Your task to perform on an android device: move a message to another label in the gmail app Image 0: 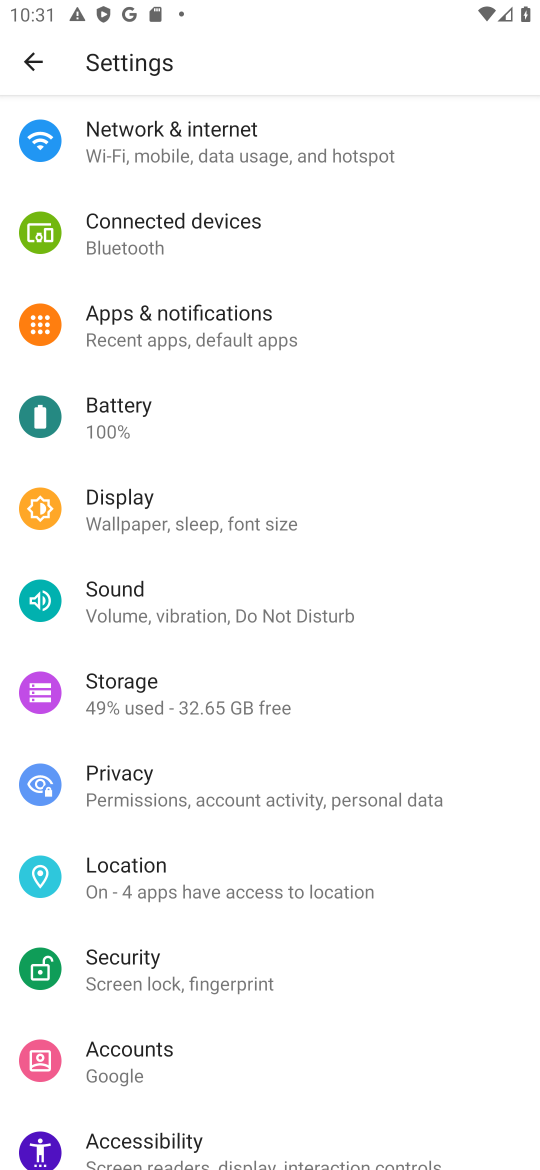
Step 0: press home button
Your task to perform on an android device: move a message to another label in the gmail app Image 1: 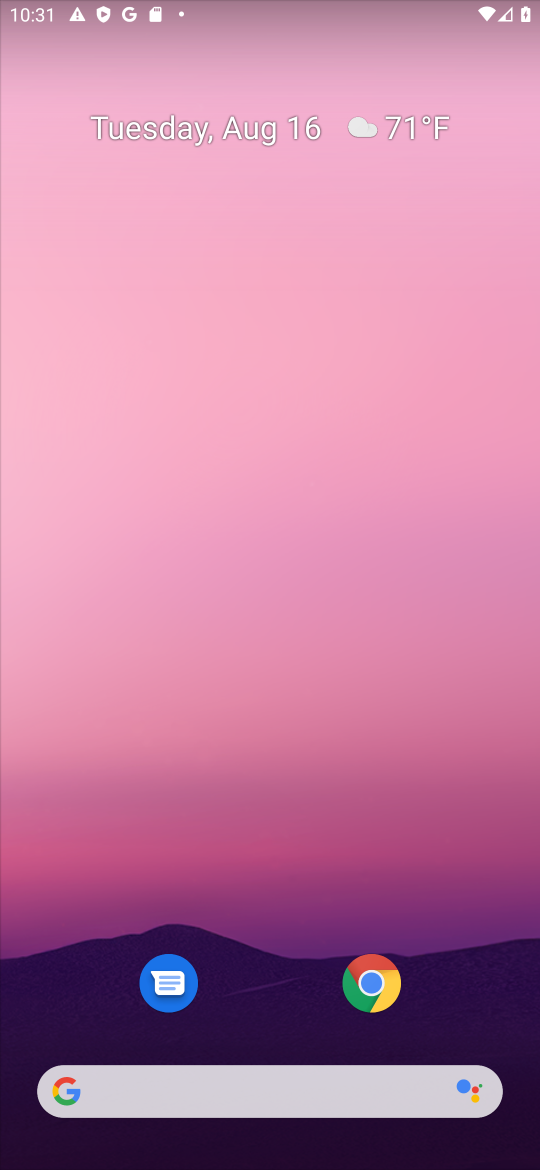
Step 1: drag from (290, 1102) to (227, 22)
Your task to perform on an android device: move a message to another label in the gmail app Image 2: 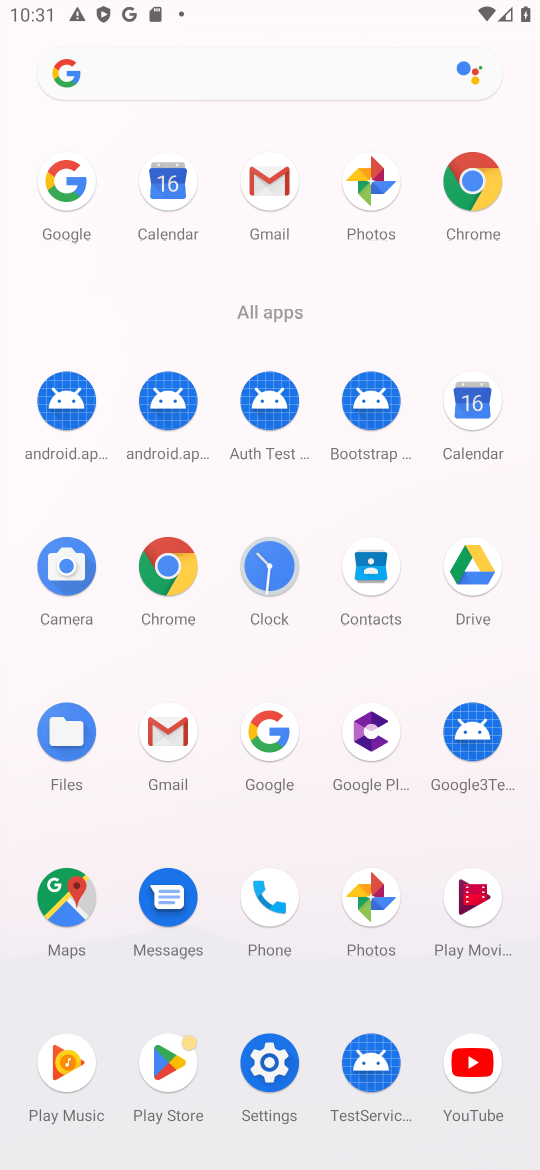
Step 2: click (164, 736)
Your task to perform on an android device: move a message to another label in the gmail app Image 3: 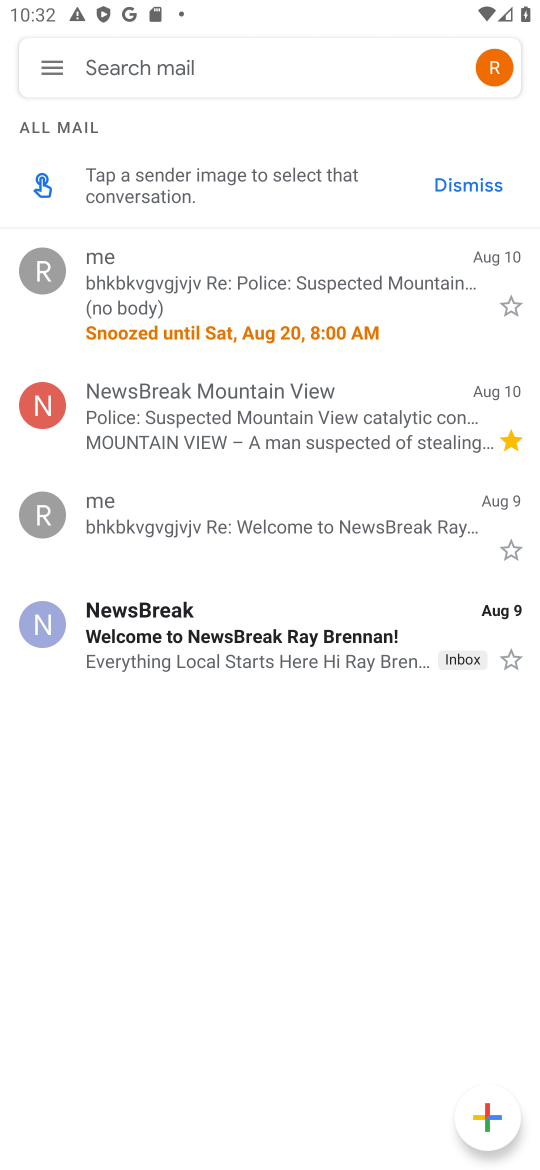
Step 3: click (51, 273)
Your task to perform on an android device: move a message to another label in the gmail app Image 4: 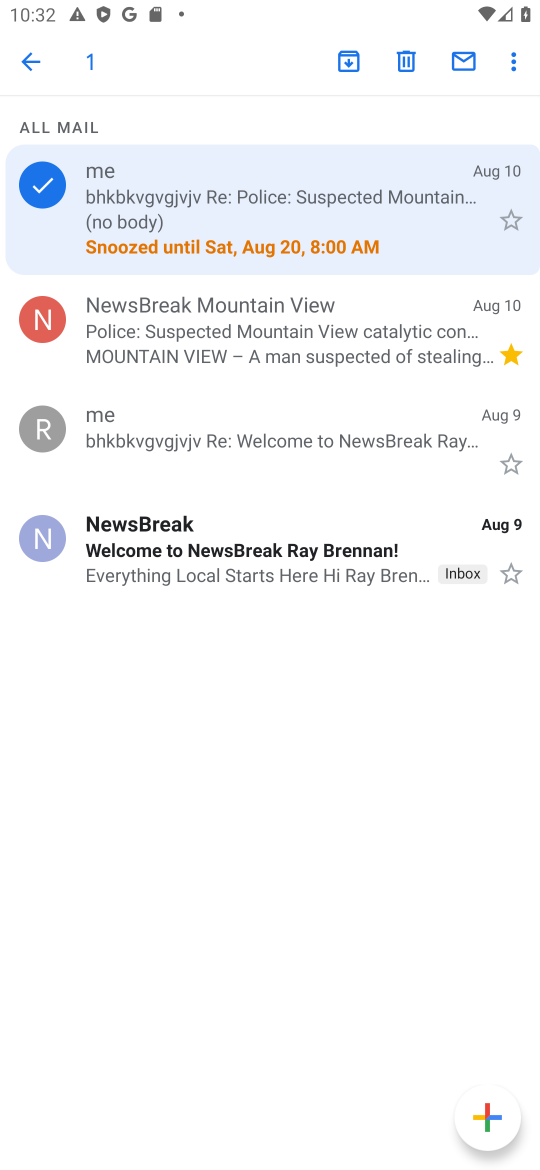
Step 4: click (509, 57)
Your task to perform on an android device: move a message to another label in the gmail app Image 5: 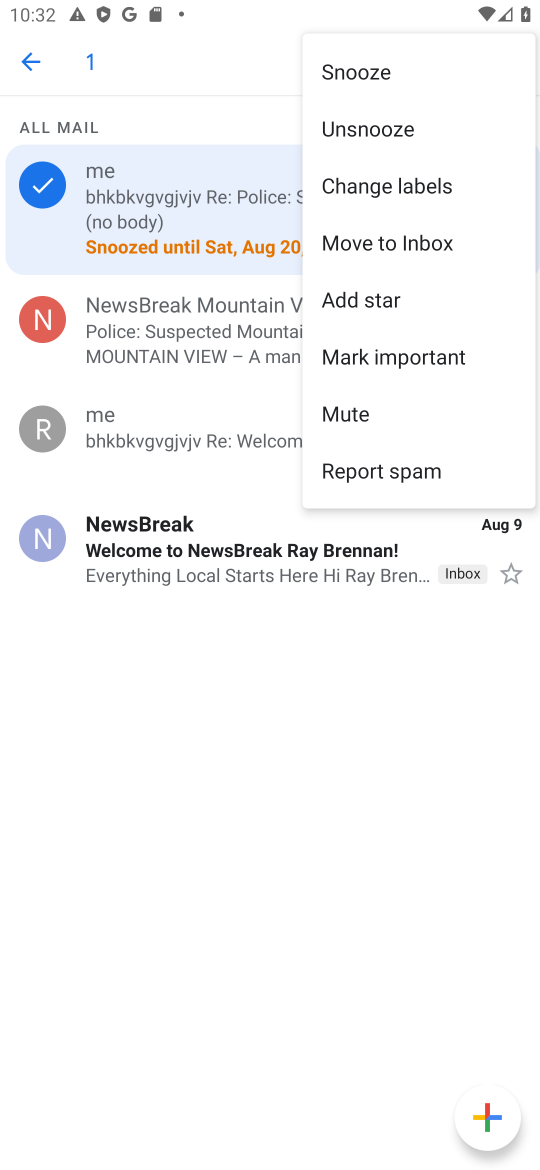
Step 5: click (379, 195)
Your task to perform on an android device: move a message to another label in the gmail app Image 6: 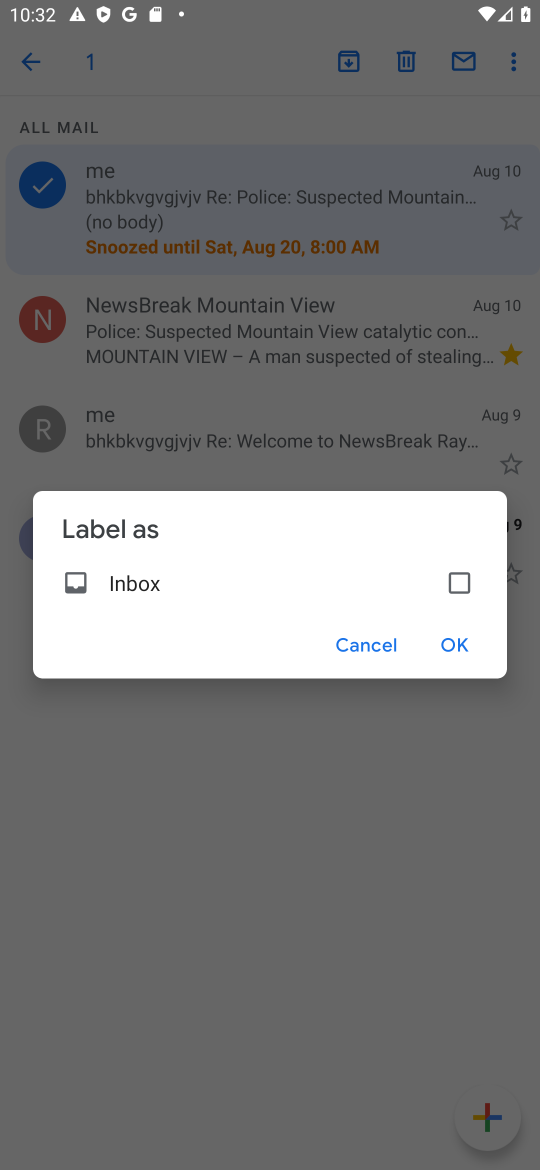
Step 6: click (449, 588)
Your task to perform on an android device: move a message to another label in the gmail app Image 7: 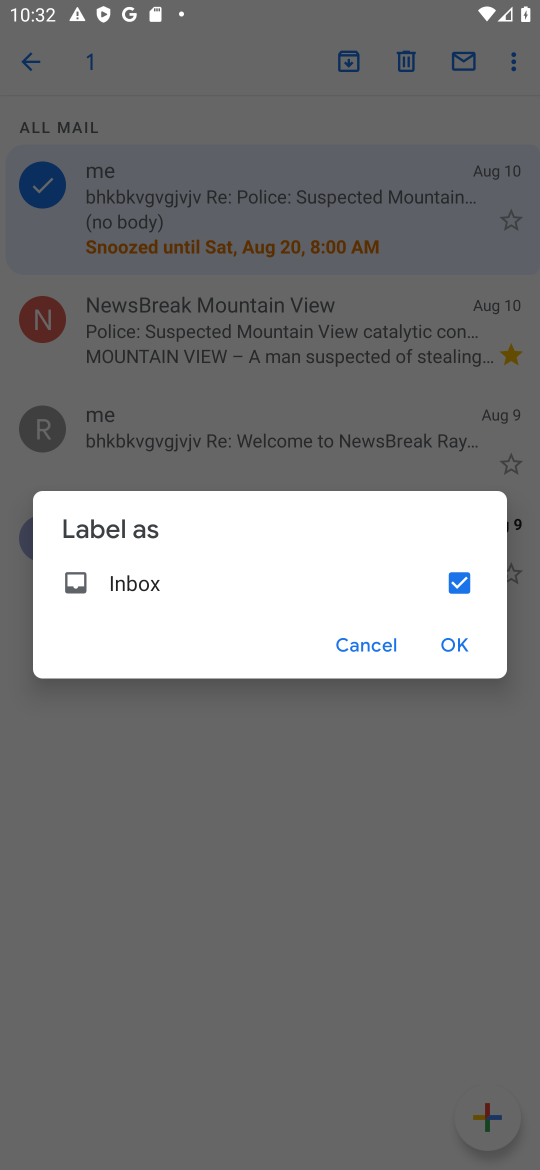
Step 7: click (461, 651)
Your task to perform on an android device: move a message to another label in the gmail app Image 8: 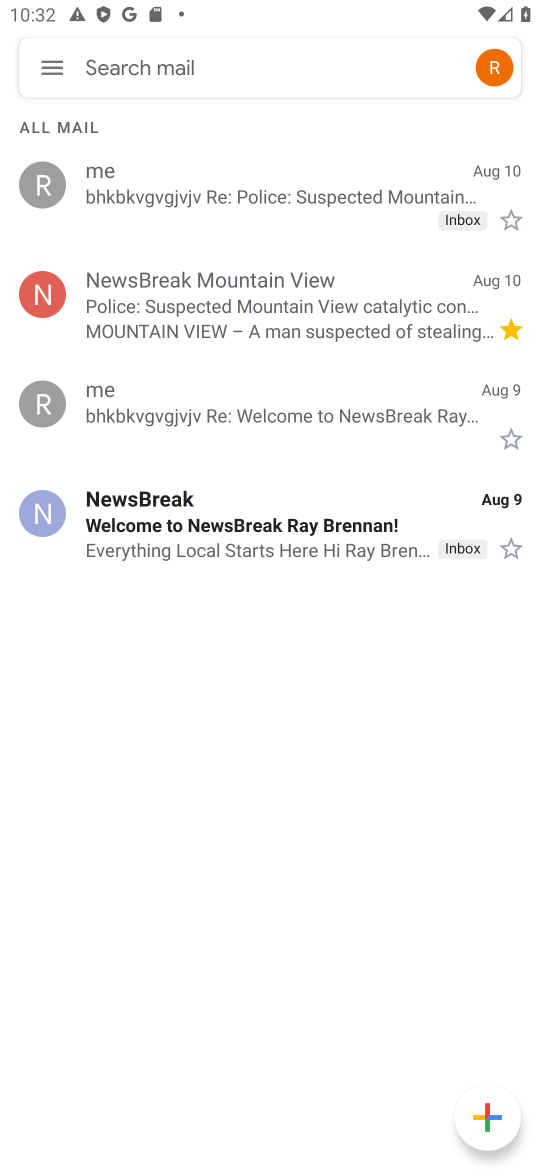
Step 8: task complete